Your task to perform on an android device: open device folders in google photos Image 0: 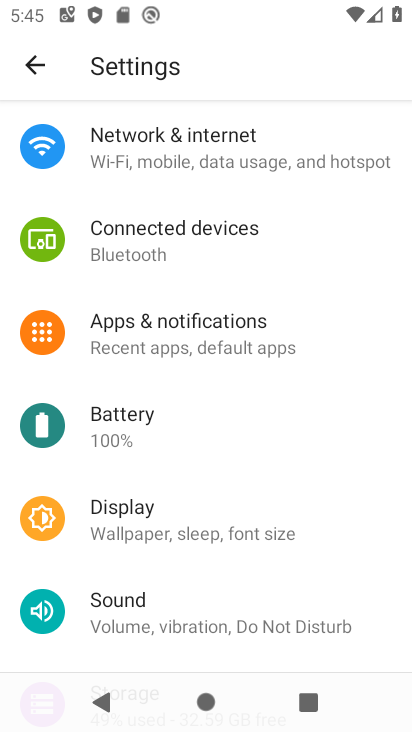
Step 0: press back button
Your task to perform on an android device: open device folders in google photos Image 1: 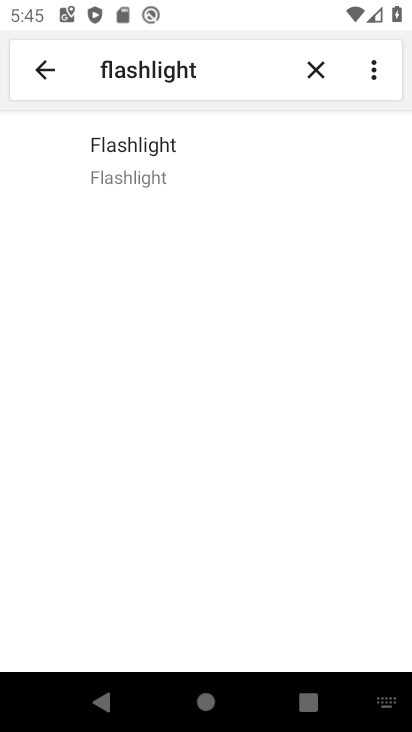
Step 1: press back button
Your task to perform on an android device: open device folders in google photos Image 2: 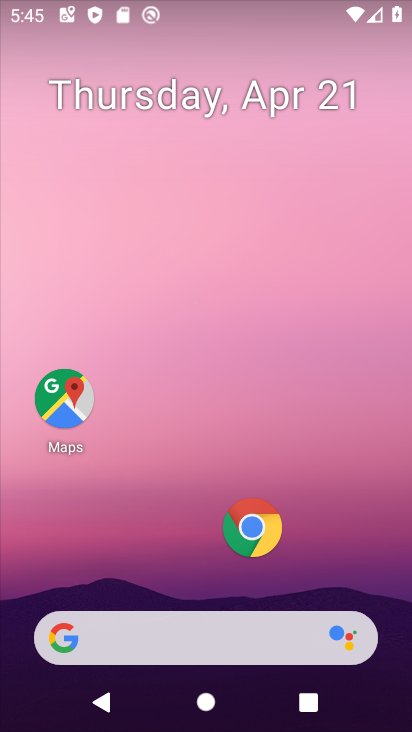
Step 2: drag from (173, 575) to (239, 42)
Your task to perform on an android device: open device folders in google photos Image 3: 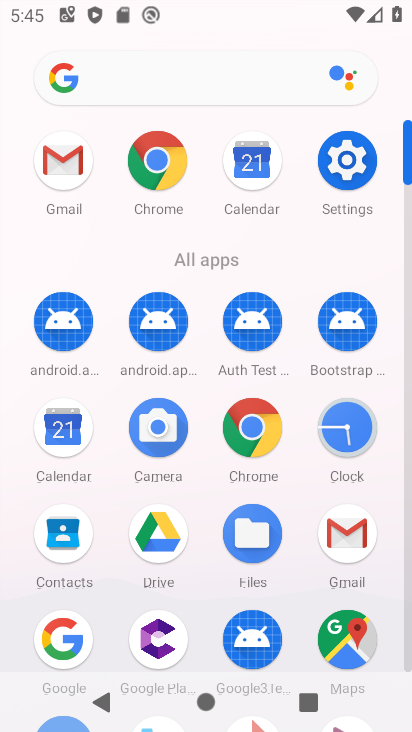
Step 3: drag from (196, 623) to (296, 77)
Your task to perform on an android device: open device folders in google photos Image 4: 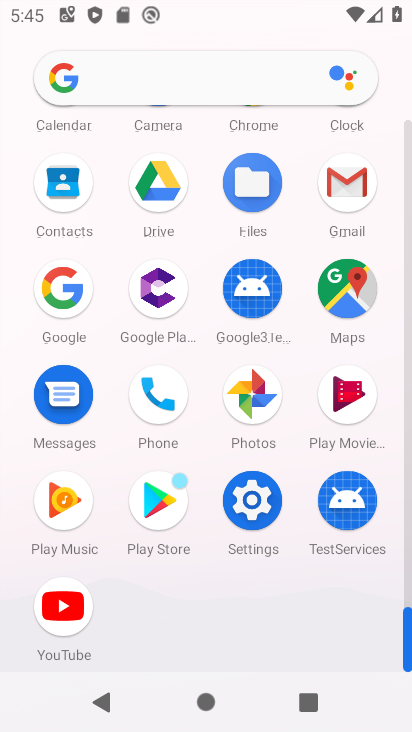
Step 4: click (260, 389)
Your task to perform on an android device: open device folders in google photos Image 5: 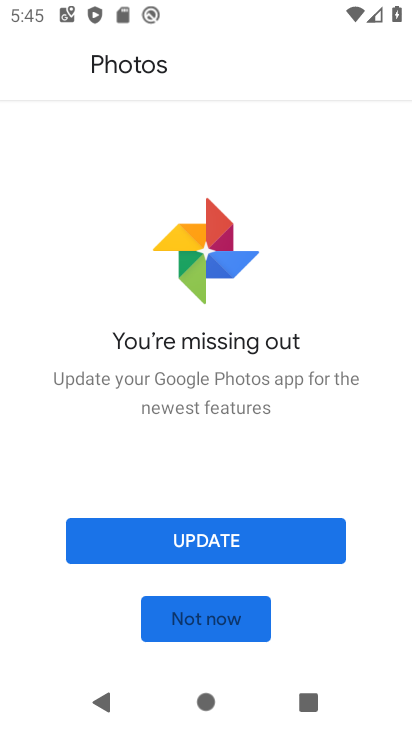
Step 5: click (199, 619)
Your task to perform on an android device: open device folders in google photos Image 6: 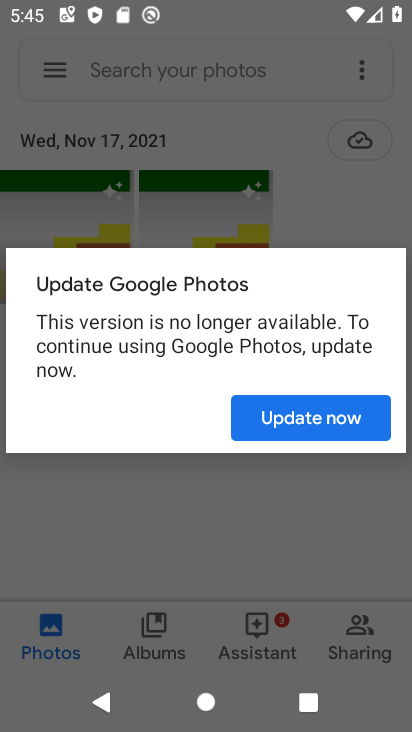
Step 6: click (153, 499)
Your task to perform on an android device: open device folders in google photos Image 7: 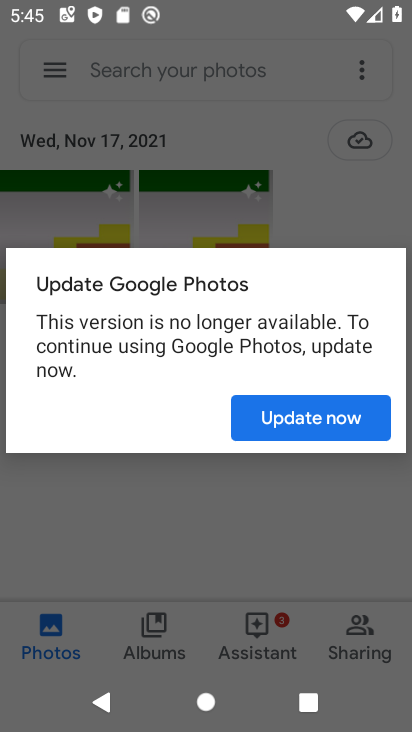
Step 7: click (322, 418)
Your task to perform on an android device: open device folders in google photos Image 8: 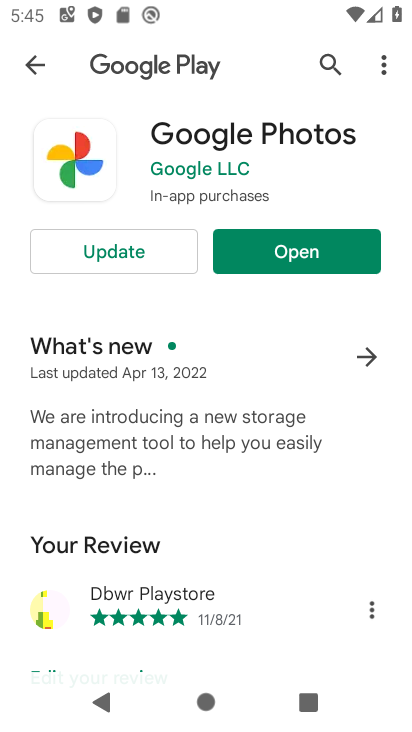
Step 8: click (309, 242)
Your task to perform on an android device: open device folders in google photos Image 9: 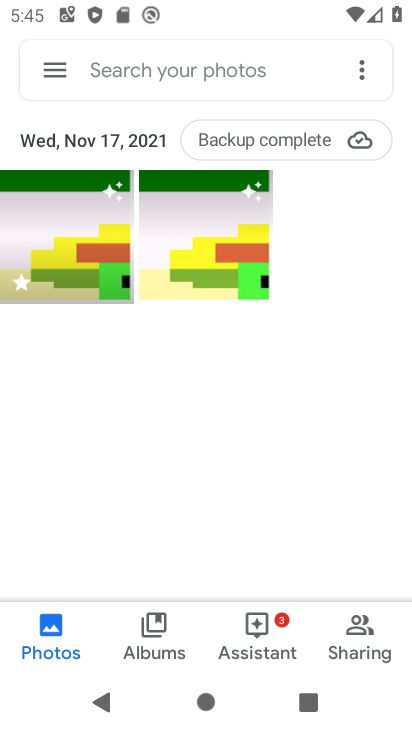
Step 9: click (59, 69)
Your task to perform on an android device: open device folders in google photos Image 10: 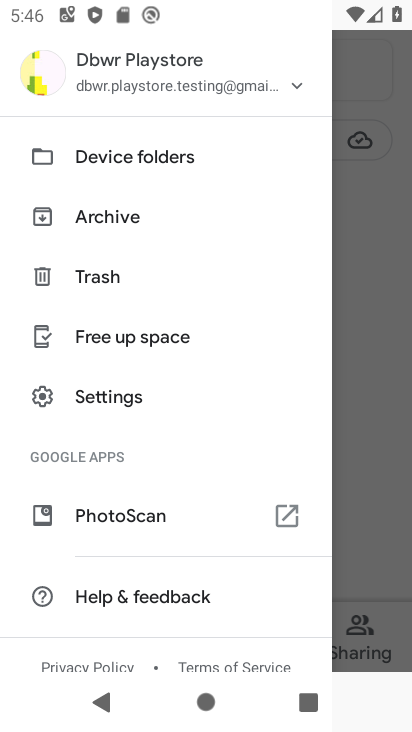
Step 10: click (141, 149)
Your task to perform on an android device: open device folders in google photos Image 11: 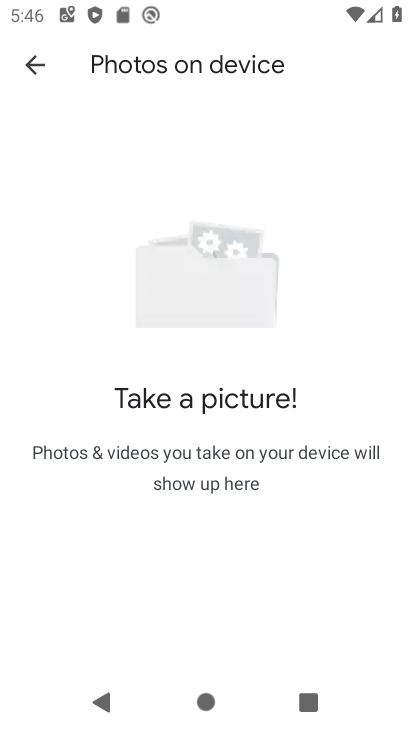
Step 11: task complete